Your task to perform on an android device: Open internet settings Image 0: 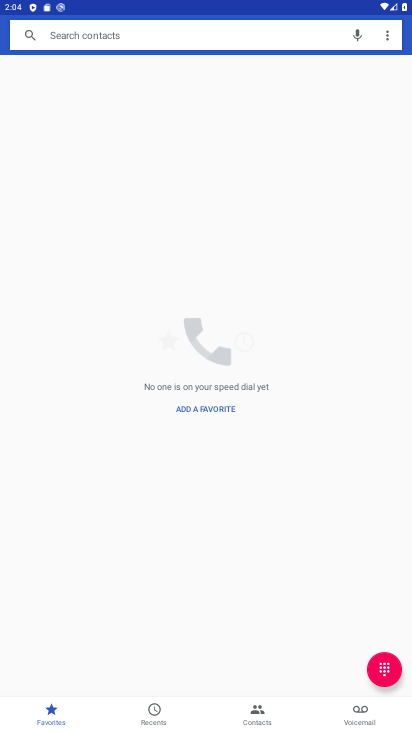
Step 0: press home button
Your task to perform on an android device: Open internet settings Image 1: 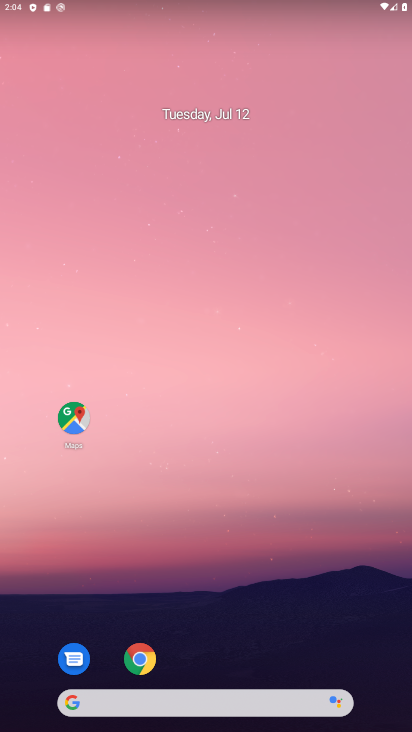
Step 1: drag from (250, 605) to (267, 107)
Your task to perform on an android device: Open internet settings Image 2: 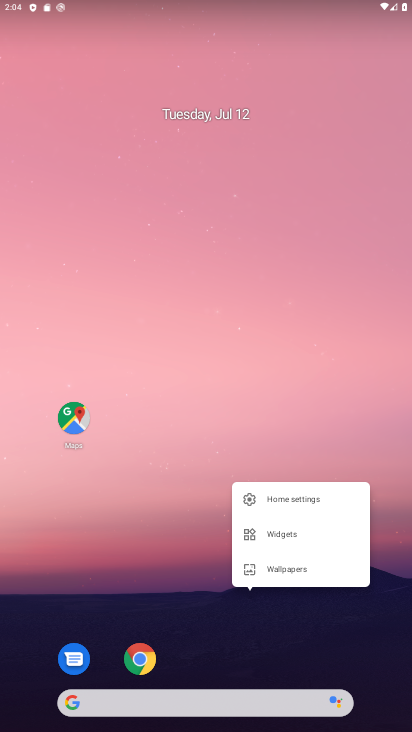
Step 2: click (212, 399)
Your task to perform on an android device: Open internet settings Image 3: 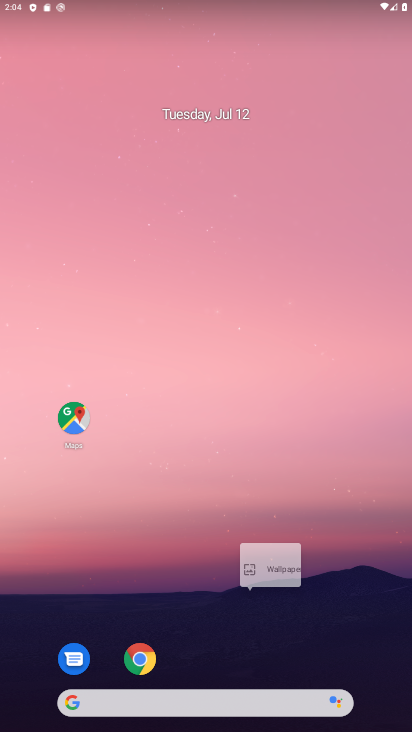
Step 3: drag from (212, 399) to (235, 10)
Your task to perform on an android device: Open internet settings Image 4: 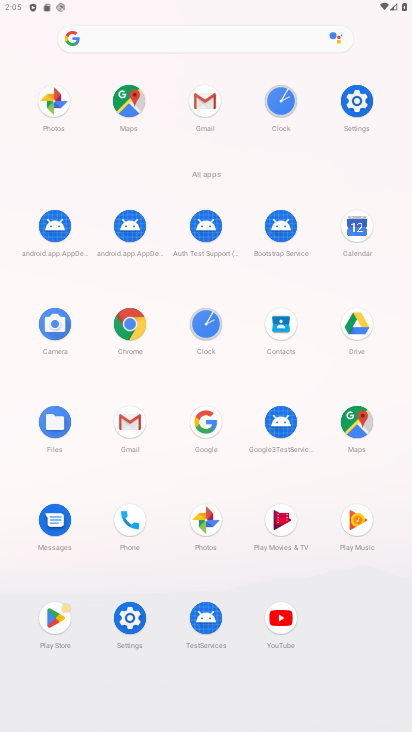
Step 4: click (353, 88)
Your task to perform on an android device: Open internet settings Image 5: 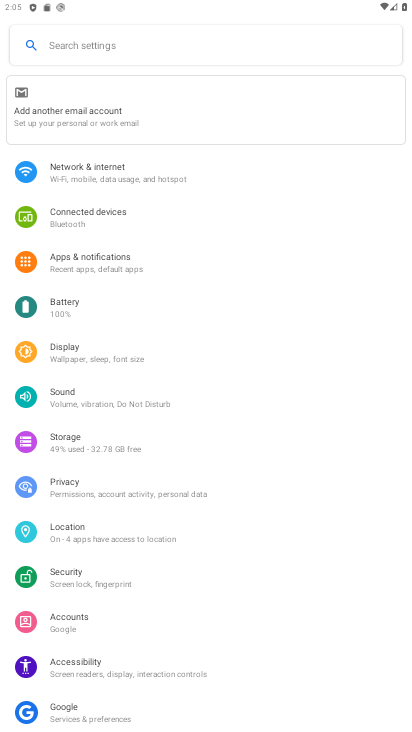
Step 5: click (232, 185)
Your task to perform on an android device: Open internet settings Image 6: 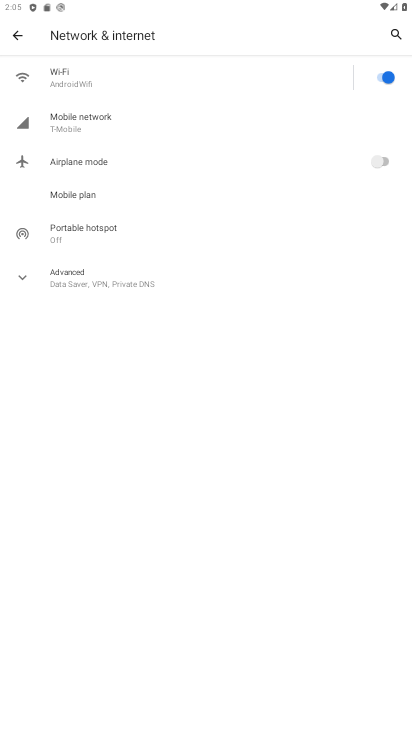
Step 6: click (188, 120)
Your task to perform on an android device: Open internet settings Image 7: 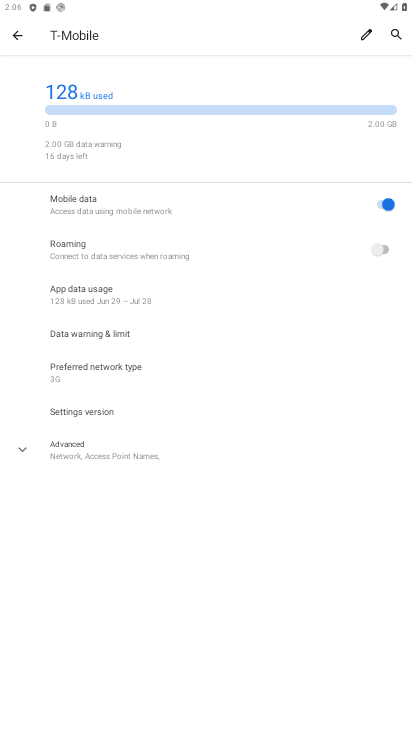
Step 7: task complete